Your task to perform on an android device: What's the price of the new iPhone on eBay? Image 0: 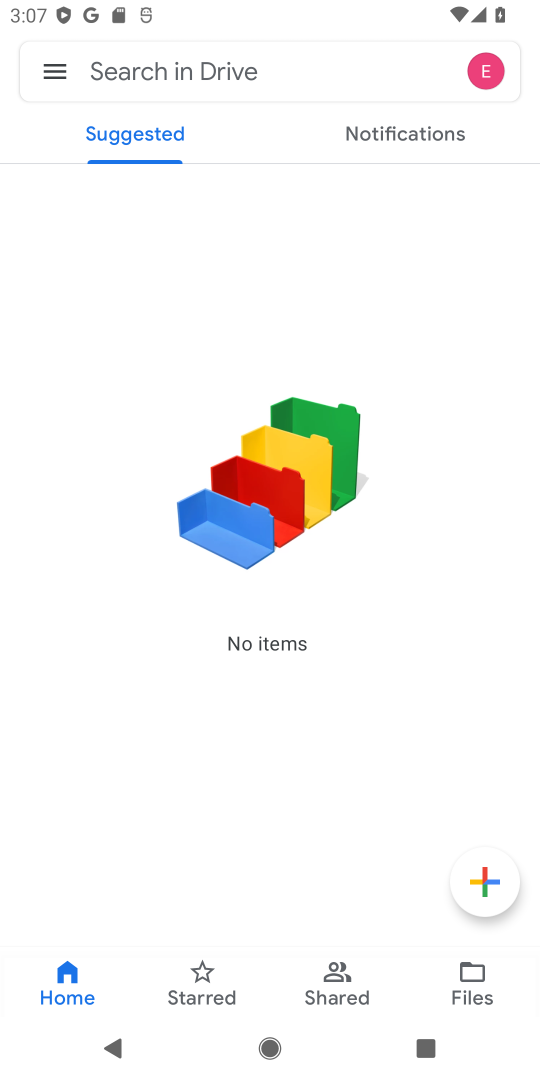
Step 0: press home button
Your task to perform on an android device: What's the price of the new iPhone on eBay? Image 1: 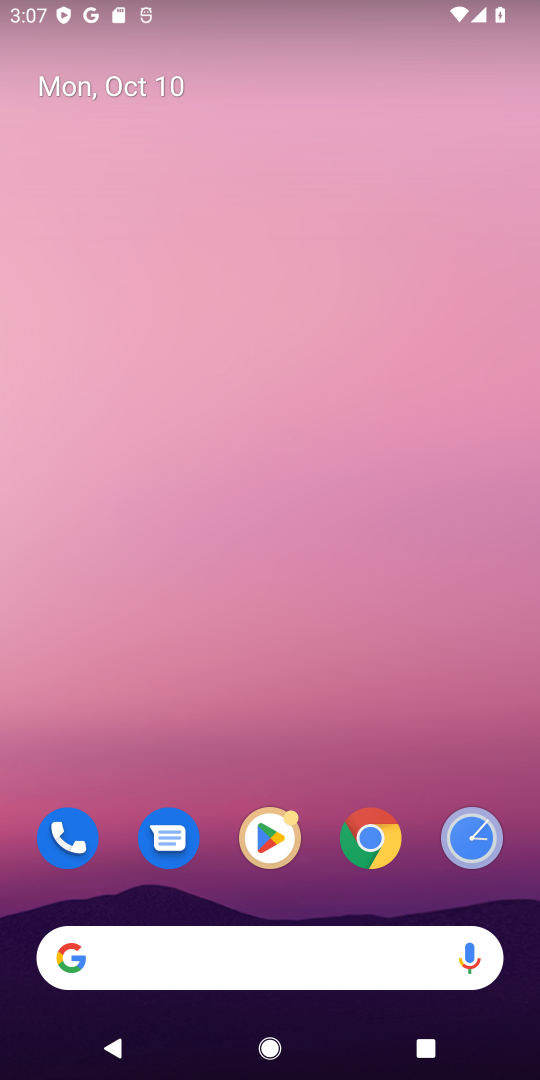
Step 1: click (306, 951)
Your task to perform on an android device: What's the price of the new iPhone on eBay? Image 2: 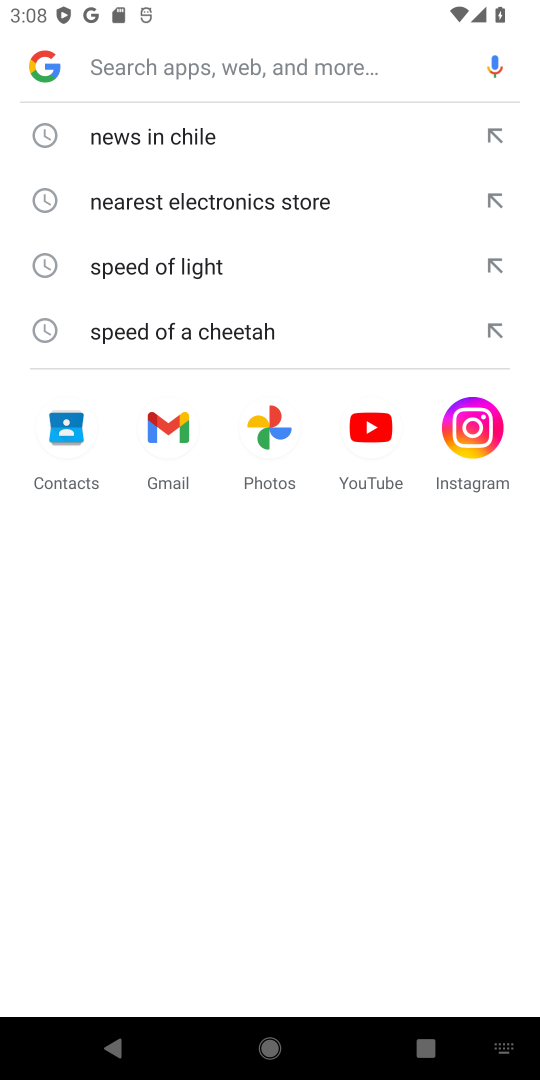
Step 2: type "new iPhone on eBay"
Your task to perform on an android device: What's the price of the new iPhone on eBay? Image 3: 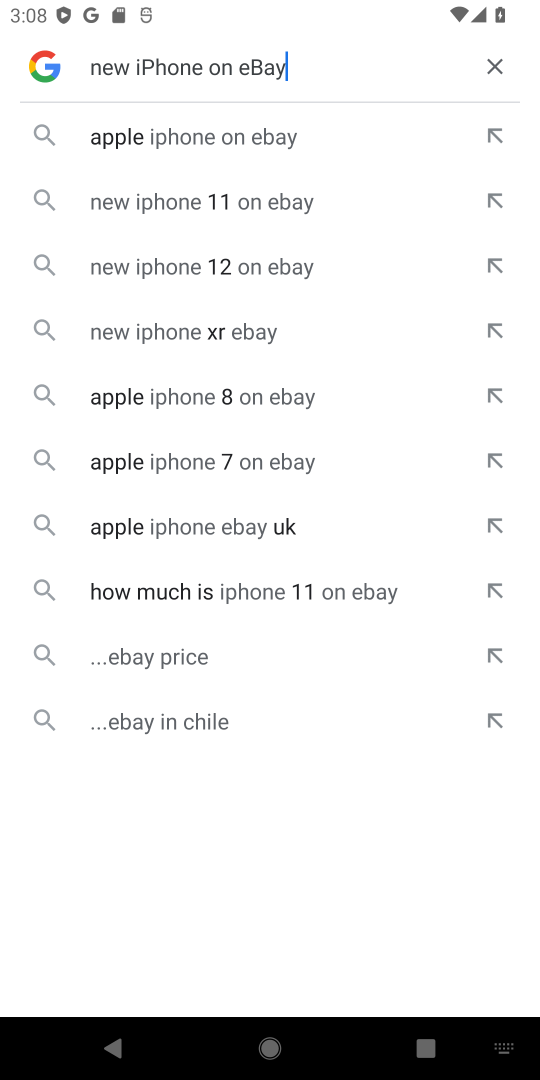
Step 3: click (357, 136)
Your task to perform on an android device: What's the price of the new iPhone on eBay? Image 4: 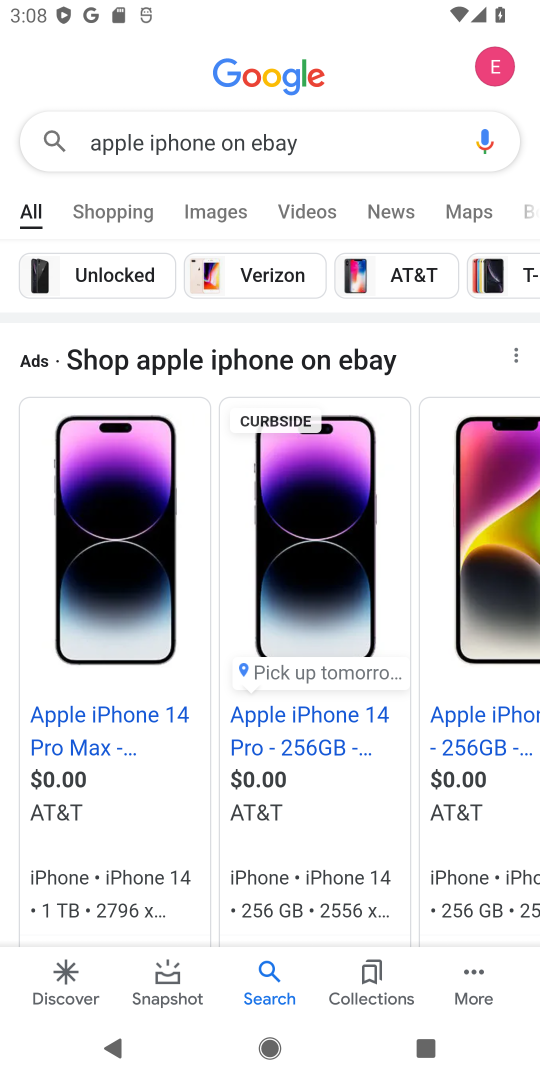
Step 4: drag from (170, 823) to (237, 397)
Your task to perform on an android device: What's the price of the new iPhone on eBay? Image 5: 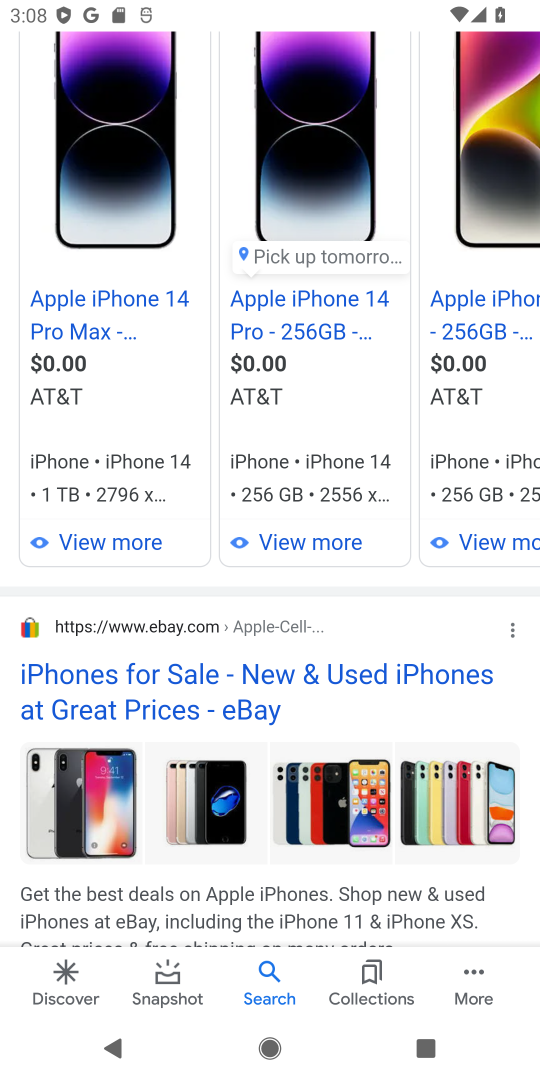
Step 5: click (288, 675)
Your task to perform on an android device: What's the price of the new iPhone on eBay? Image 6: 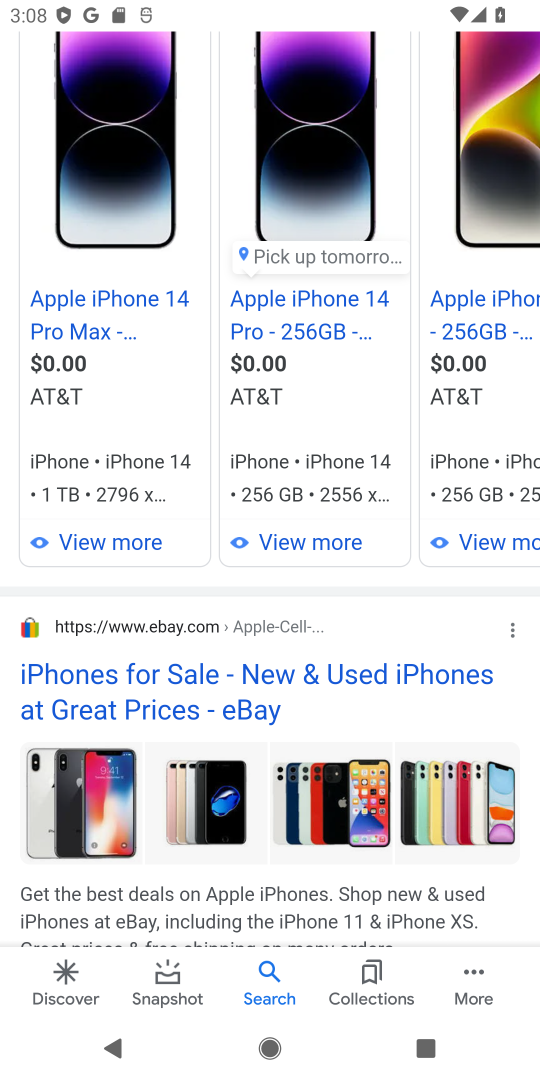
Step 6: task complete